Your task to perform on an android device: Turn on the flashlight Image 0: 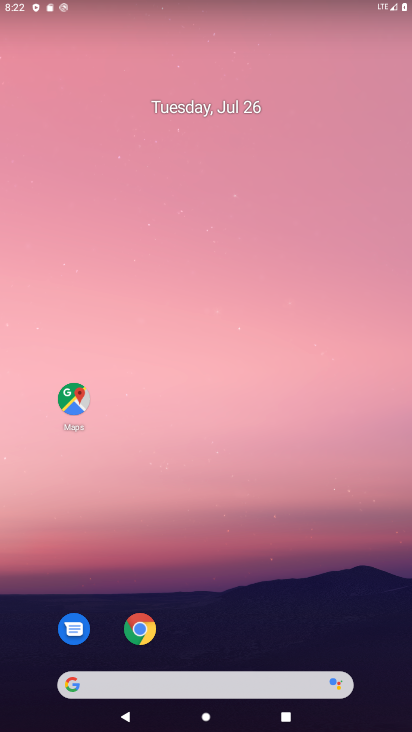
Step 0: drag from (275, 660) to (182, 59)
Your task to perform on an android device: Turn on the flashlight Image 1: 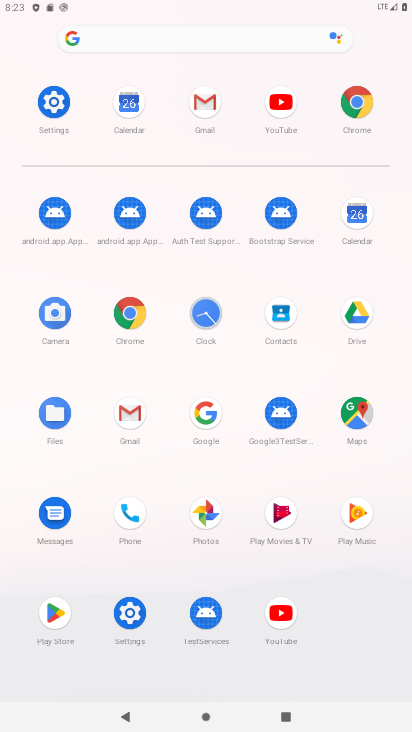
Step 1: click (122, 616)
Your task to perform on an android device: Turn on the flashlight Image 2: 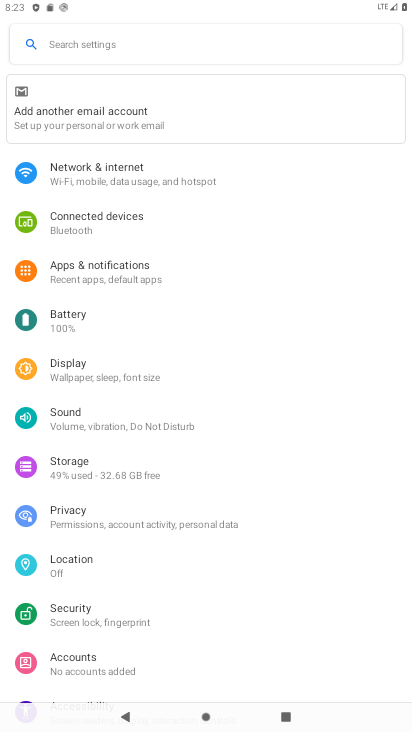
Step 2: task complete